Your task to perform on an android device: empty trash in the gmail app Image 0: 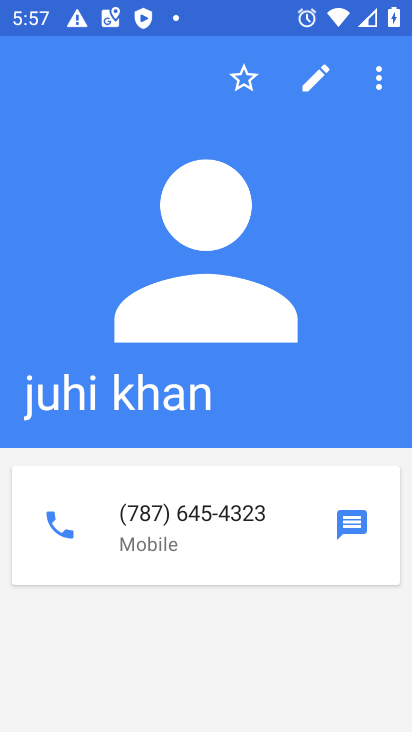
Step 0: press home button
Your task to perform on an android device: empty trash in the gmail app Image 1: 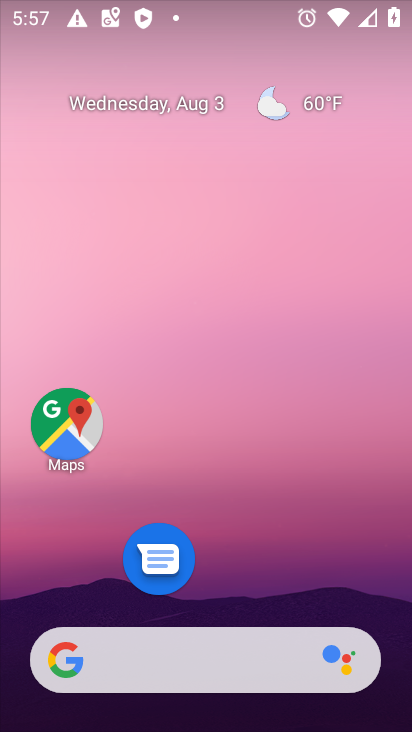
Step 1: drag from (214, 634) to (214, 102)
Your task to perform on an android device: empty trash in the gmail app Image 2: 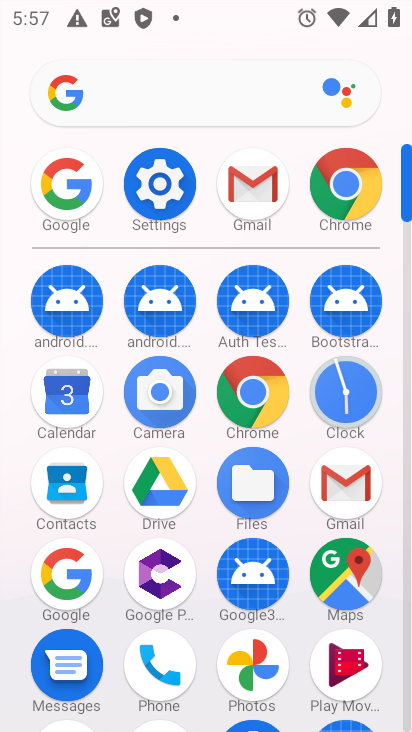
Step 2: click (341, 492)
Your task to perform on an android device: empty trash in the gmail app Image 3: 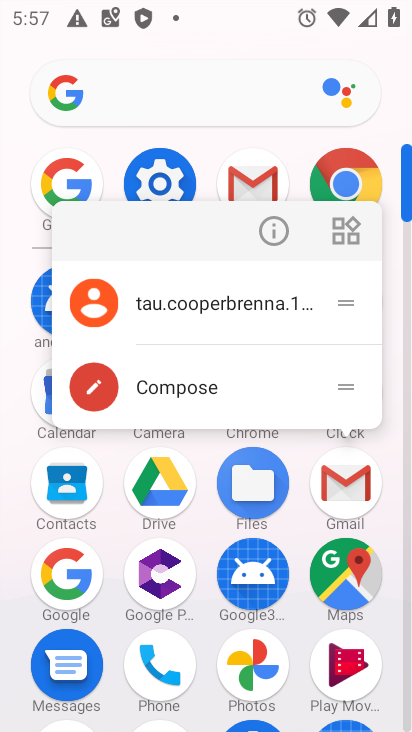
Step 3: click (341, 492)
Your task to perform on an android device: empty trash in the gmail app Image 4: 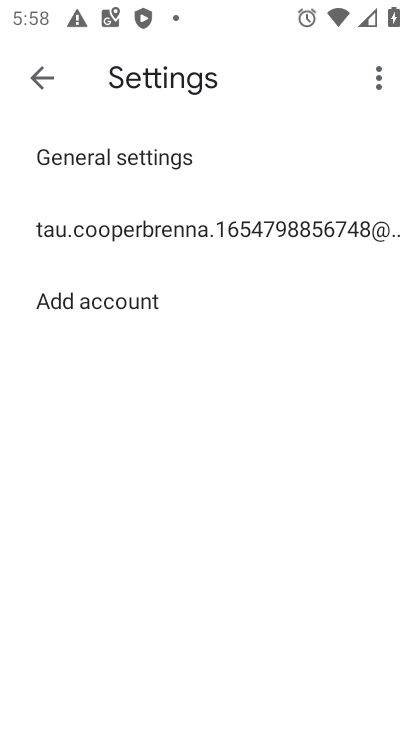
Step 4: click (45, 79)
Your task to perform on an android device: empty trash in the gmail app Image 5: 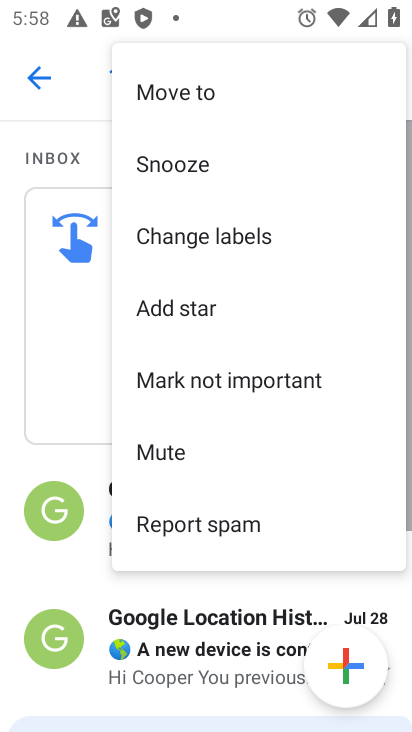
Step 5: click (45, 81)
Your task to perform on an android device: empty trash in the gmail app Image 6: 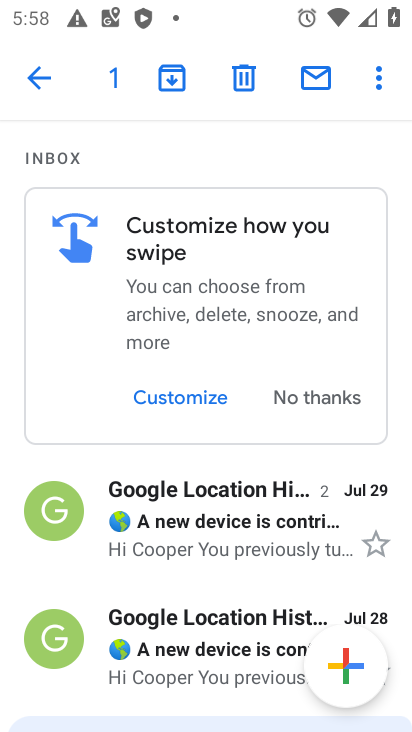
Step 6: click (41, 78)
Your task to perform on an android device: empty trash in the gmail app Image 7: 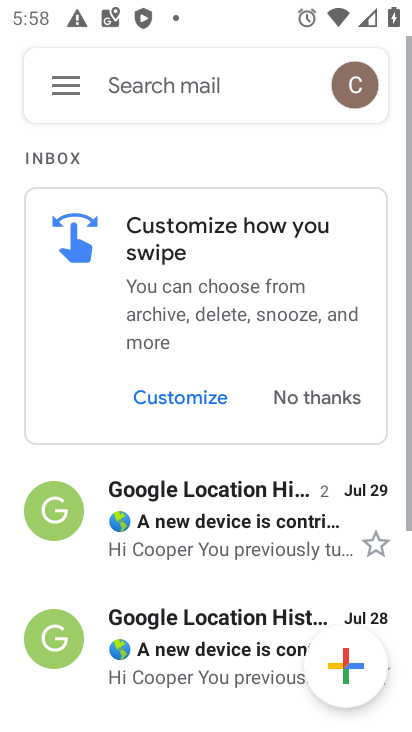
Step 7: click (48, 85)
Your task to perform on an android device: empty trash in the gmail app Image 8: 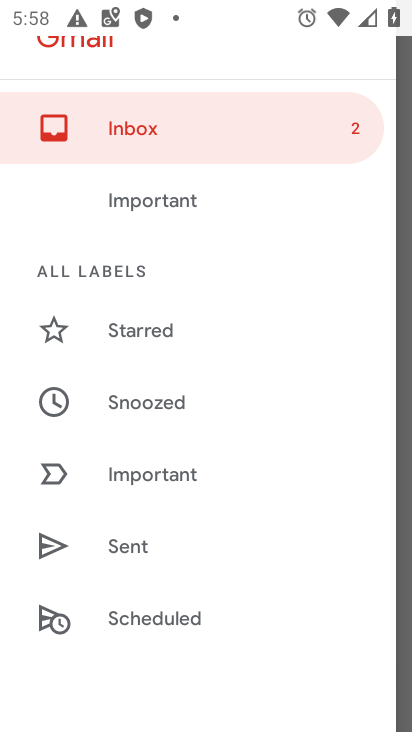
Step 8: drag from (138, 639) to (138, 195)
Your task to perform on an android device: empty trash in the gmail app Image 9: 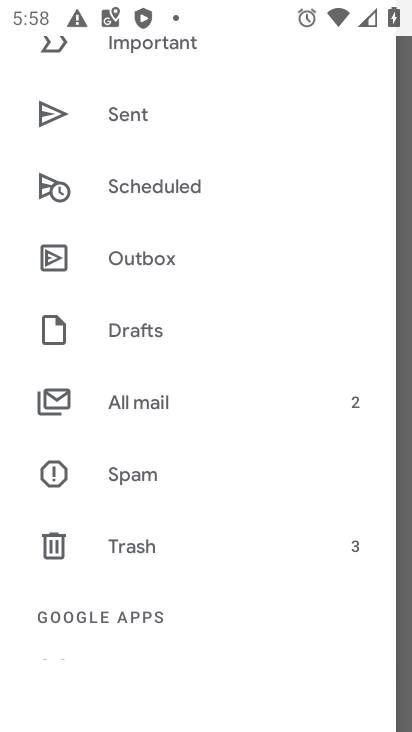
Step 9: click (137, 546)
Your task to perform on an android device: empty trash in the gmail app Image 10: 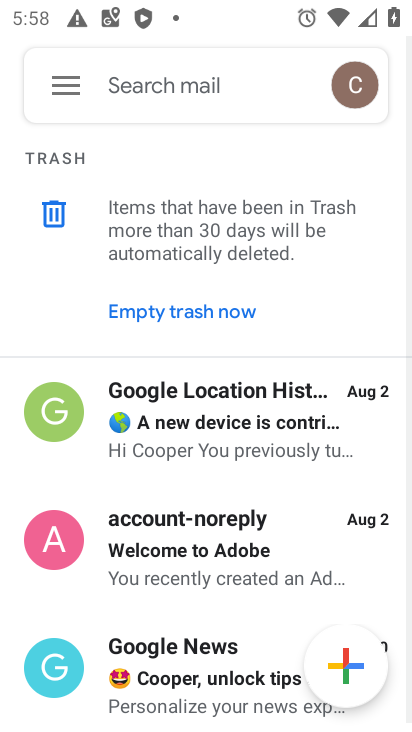
Step 10: task complete